Your task to perform on an android device: turn on the 24-hour format for clock Image 0: 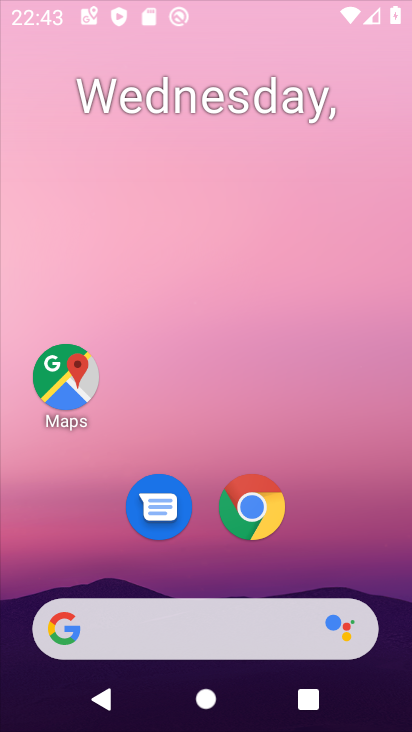
Step 0: drag from (211, 196) to (284, 181)
Your task to perform on an android device: turn on the 24-hour format for clock Image 1: 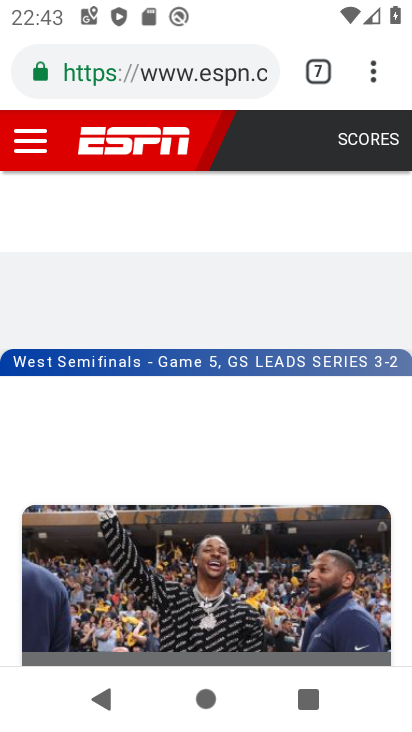
Step 1: press home button
Your task to perform on an android device: turn on the 24-hour format for clock Image 2: 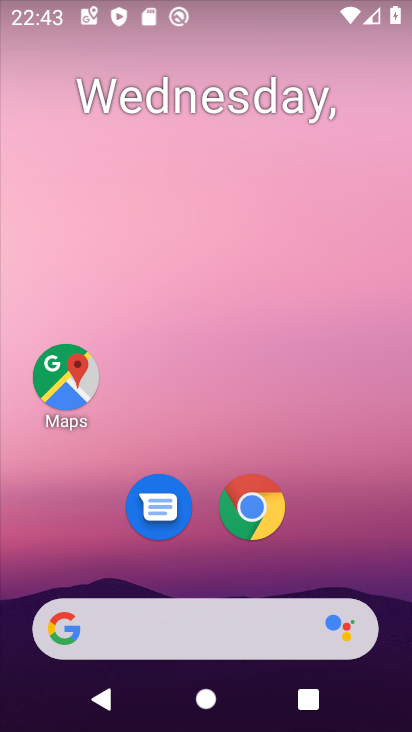
Step 2: drag from (327, 566) to (307, 187)
Your task to perform on an android device: turn on the 24-hour format for clock Image 3: 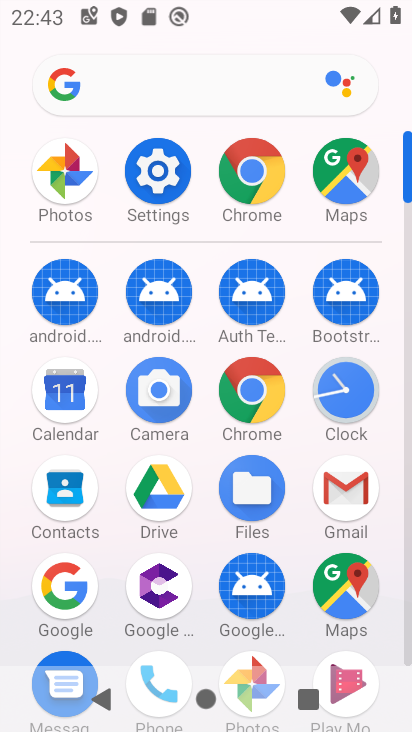
Step 3: click (356, 395)
Your task to perform on an android device: turn on the 24-hour format for clock Image 4: 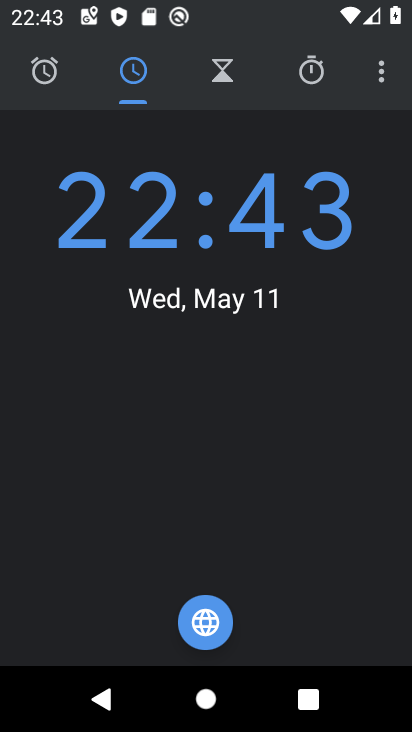
Step 4: click (374, 72)
Your task to perform on an android device: turn on the 24-hour format for clock Image 5: 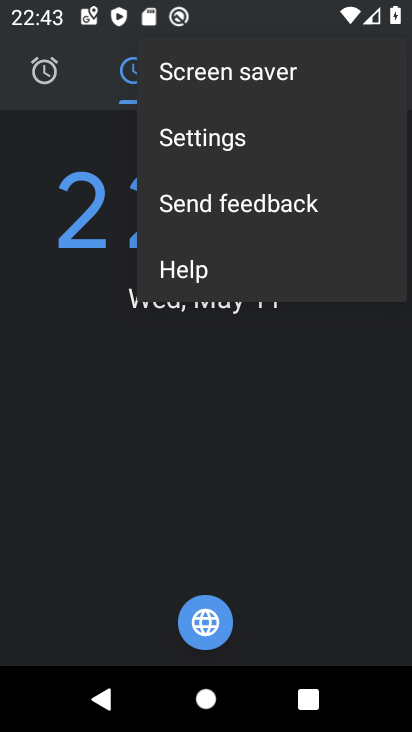
Step 5: click (192, 153)
Your task to perform on an android device: turn on the 24-hour format for clock Image 6: 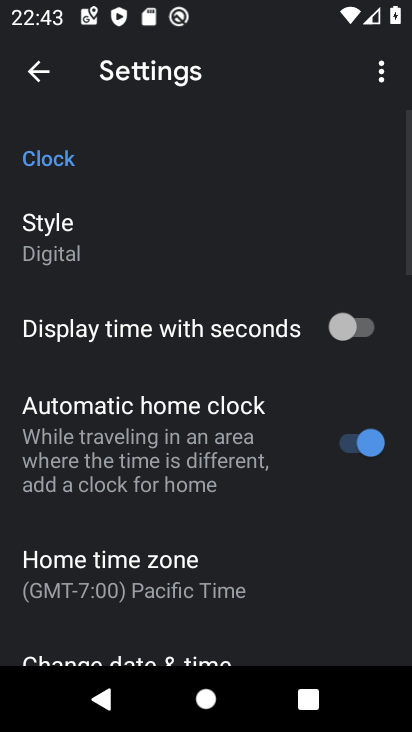
Step 6: drag from (204, 574) to (259, 245)
Your task to perform on an android device: turn on the 24-hour format for clock Image 7: 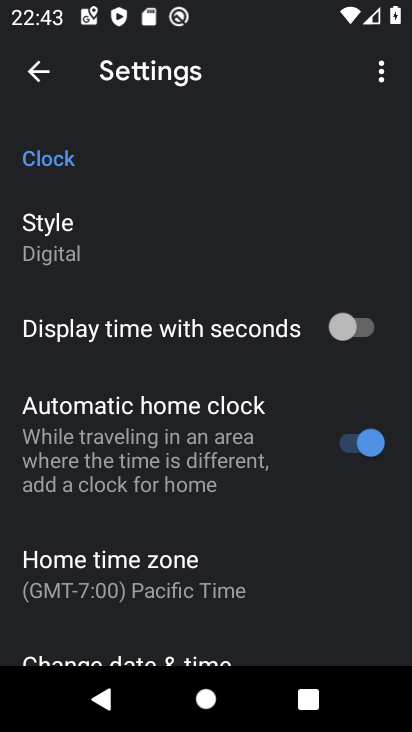
Step 7: drag from (247, 653) to (249, 290)
Your task to perform on an android device: turn on the 24-hour format for clock Image 8: 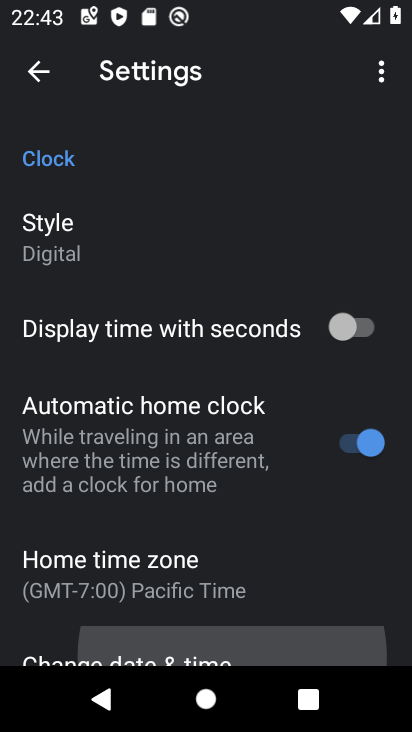
Step 8: drag from (208, 468) to (220, 235)
Your task to perform on an android device: turn on the 24-hour format for clock Image 9: 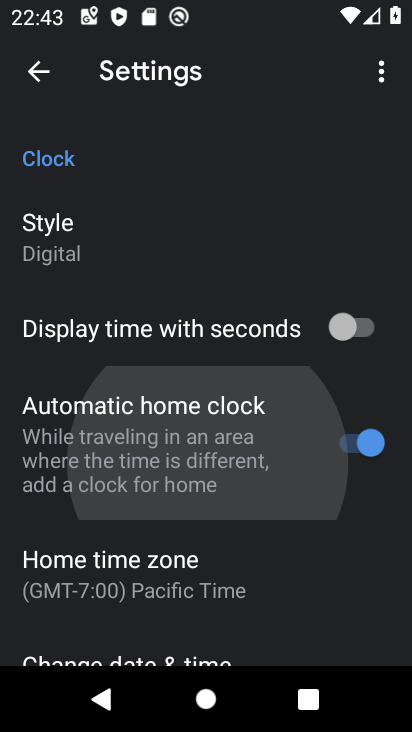
Step 9: drag from (238, 482) to (255, 227)
Your task to perform on an android device: turn on the 24-hour format for clock Image 10: 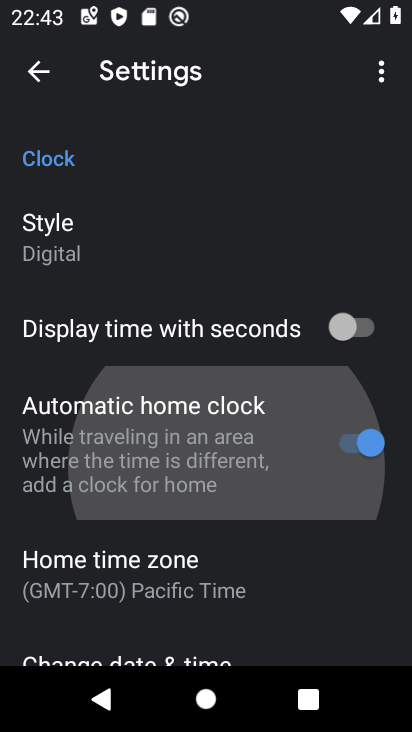
Step 10: drag from (244, 476) to (250, 268)
Your task to perform on an android device: turn on the 24-hour format for clock Image 11: 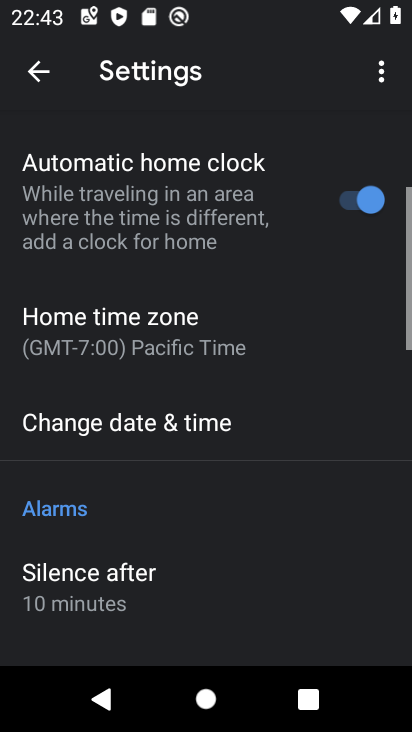
Step 11: drag from (242, 513) to (249, 206)
Your task to perform on an android device: turn on the 24-hour format for clock Image 12: 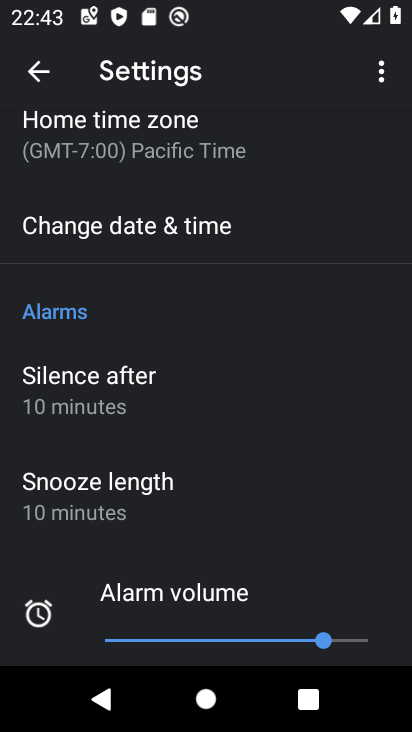
Step 12: click (157, 236)
Your task to perform on an android device: turn on the 24-hour format for clock Image 13: 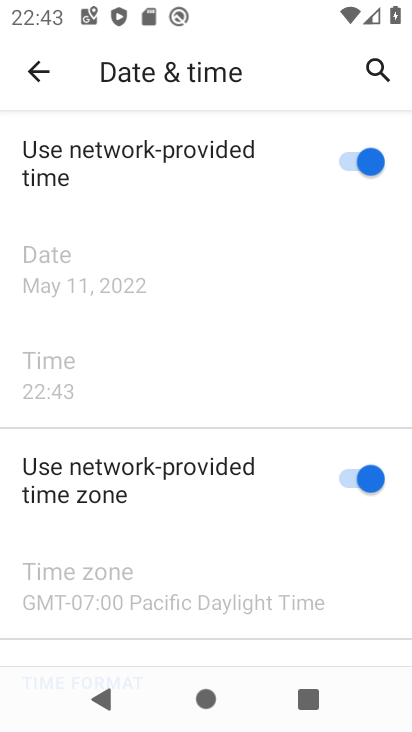
Step 13: drag from (251, 580) to (244, 288)
Your task to perform on an android device: turn on the 24-hour format for clock Image 14: 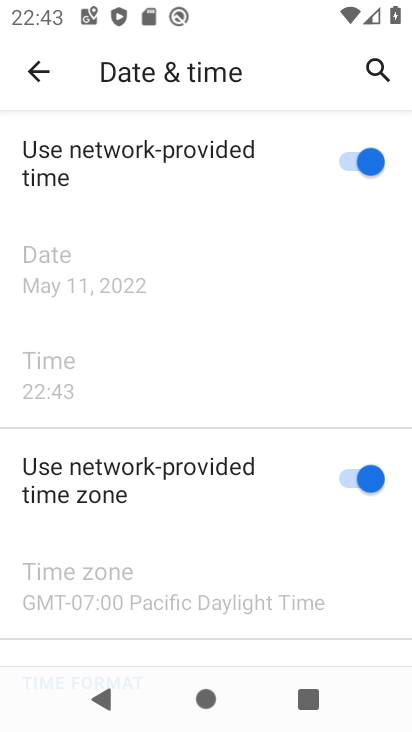
Step 14: drag from (198, 505) to (215, 266)
Your task to perform on an android device: turn on the 24-hour format for clock Image 15: 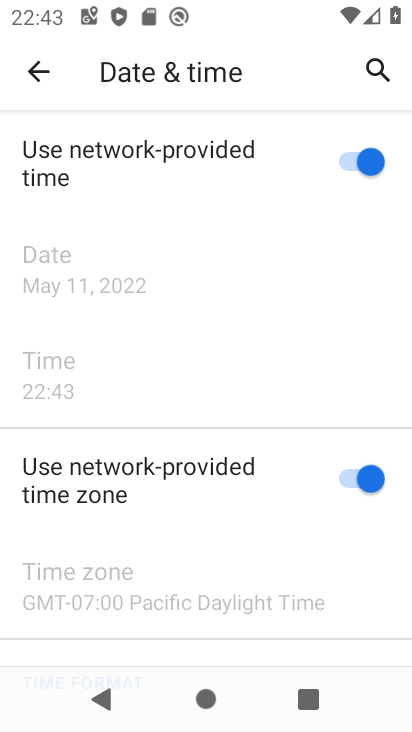
Step 15: drag from (218, 518) to (253, 275)
Your task to perform on an android device: turn on the 24-hour format for clock Image 16: 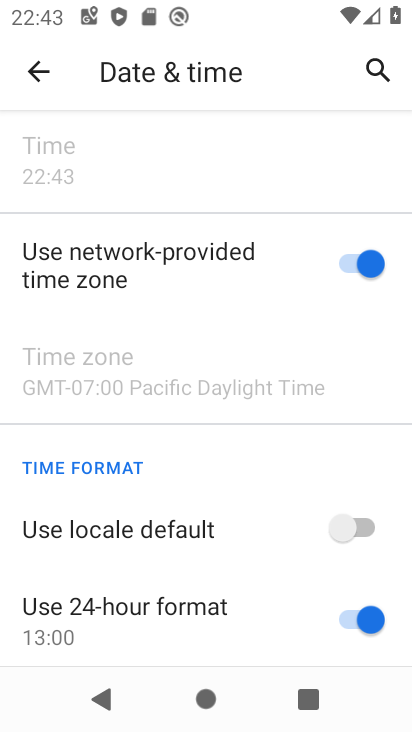
Step 16: click (355, 520)
Your task to perform on an android device: turn on the 24-hour format for clock Image 17: 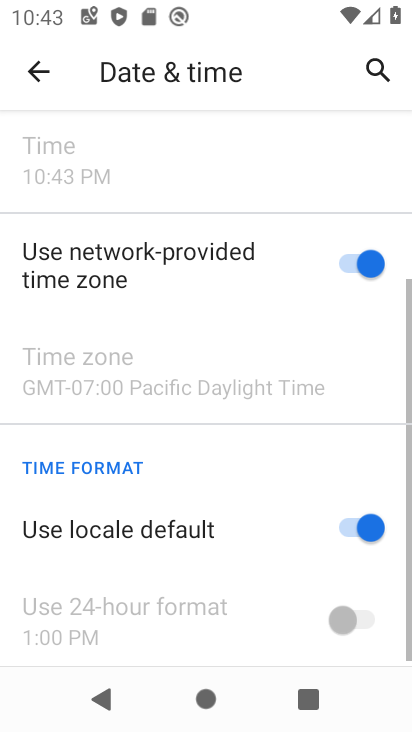
Step 17: click (351, 632)
Your task to perform on an android device: turn on the 24-hour format for clock Image 18: 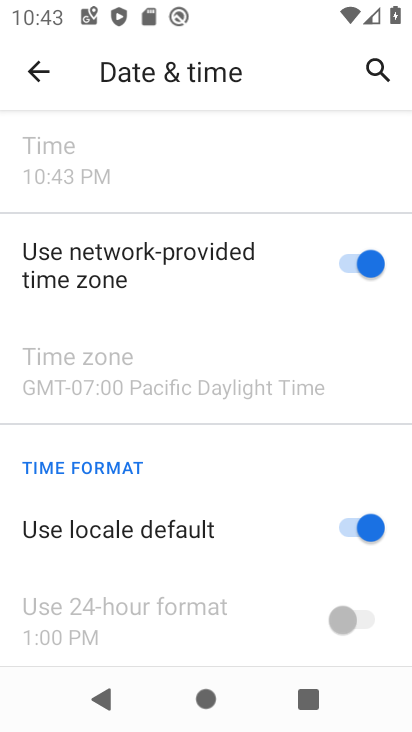
Step 18: click (349, 620)
Your task to perform on an android device: turn on the 24-hour format for clock Image 19: 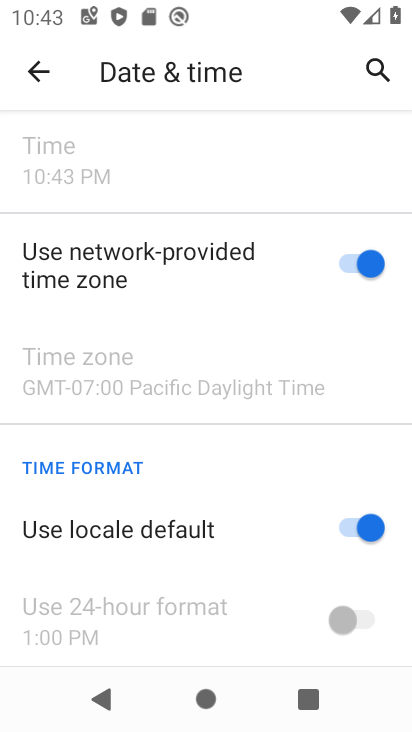
Step 19: click (358, 508)
Your task to perform on an android device: turn on the 24-hour format for clock Image 20: 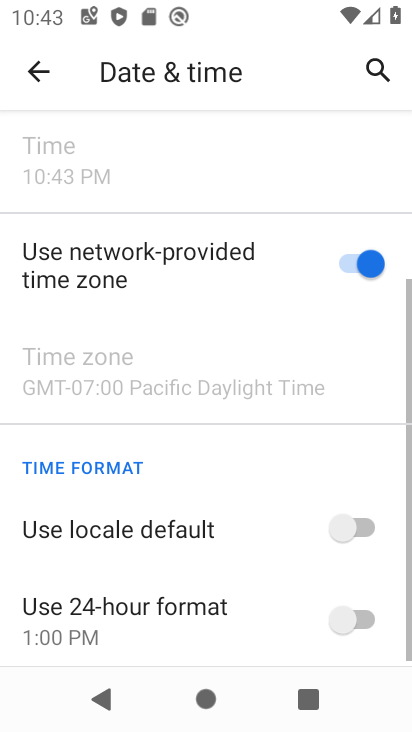
Step 20: click (360, 620)
Your task to perform on an android device: turn on the 24-hour format for clock Image 21: 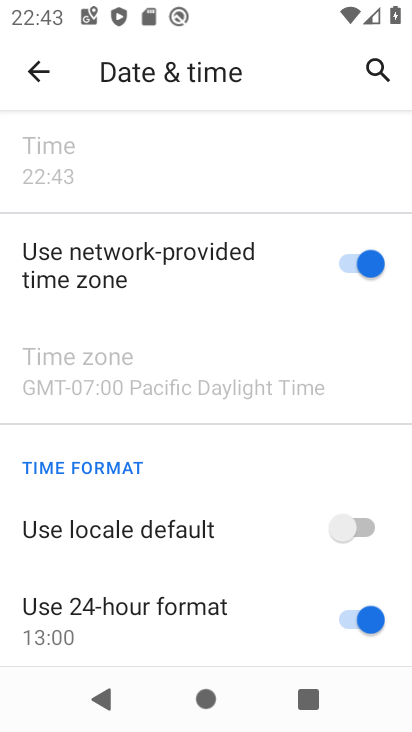
Step 21: task complete